Your task to perform on an android device: Open Google Chrome Image 0: 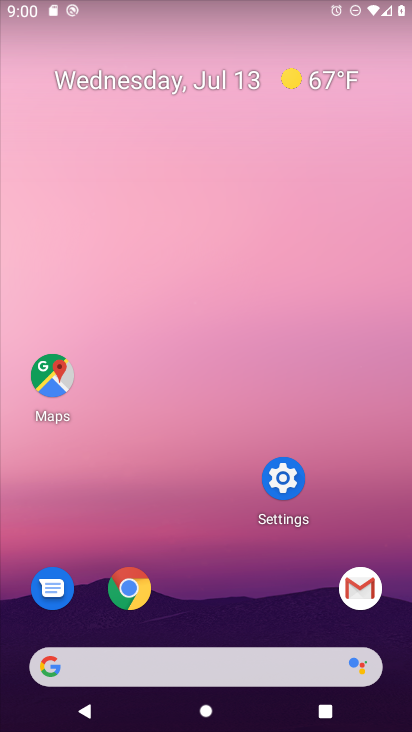
Step 0: press home button
Your task to perform on an android device: Open Google Chrome Image 1: 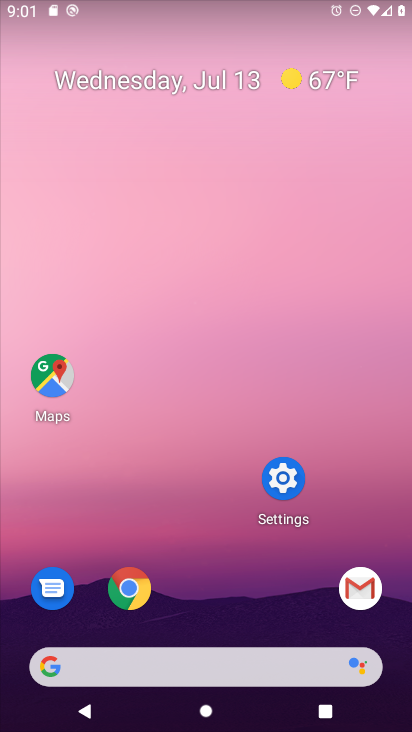
Step 1: click (119, 585)
Your task to perform on an android device: Open Google Chrome Image 2: 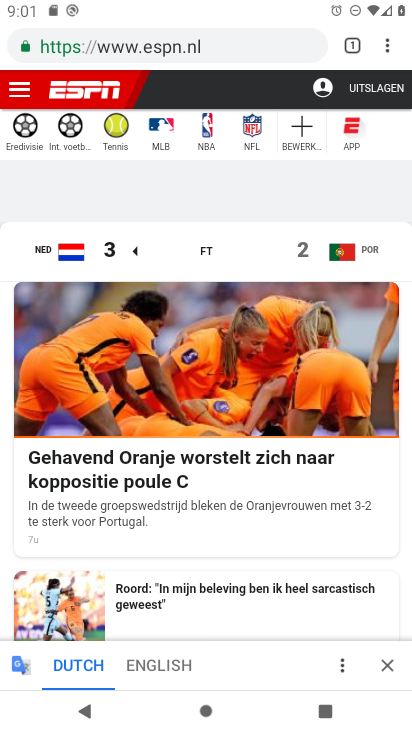
Step 2: click (352, 43)
Your task to perform on an android device: Open Google Chrome Image 3: 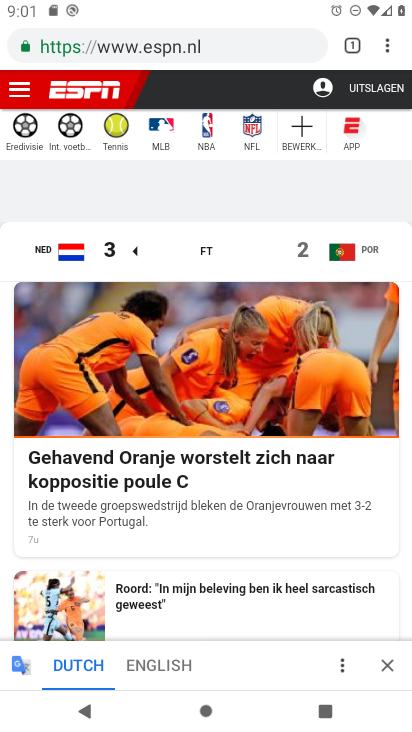
Step 3: click (349, 45)
Your task to perform on an android device: Open Google Chrome Image 4: 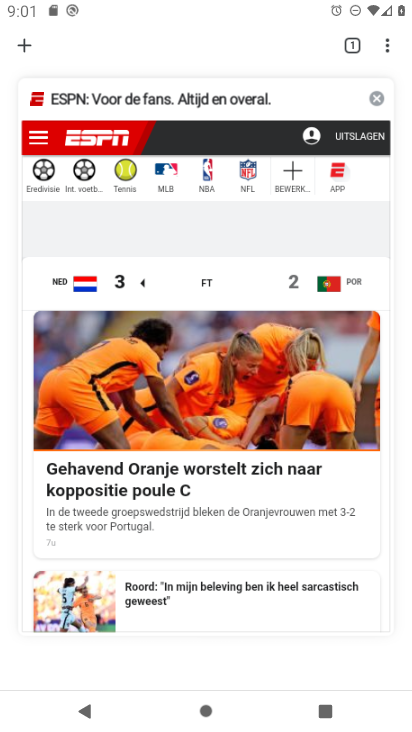
Step 4: click (24, 43)
Your task to perform on an android device: Open Google Chrome Image 5: 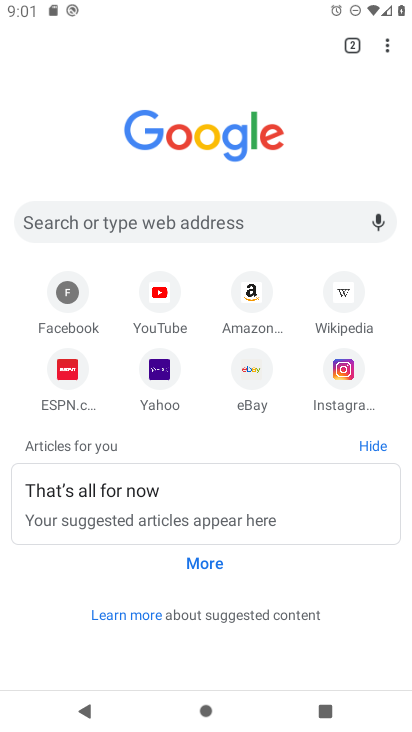
Step 5: task complete